Your task to perform on an android device: change timer sound Image 0: 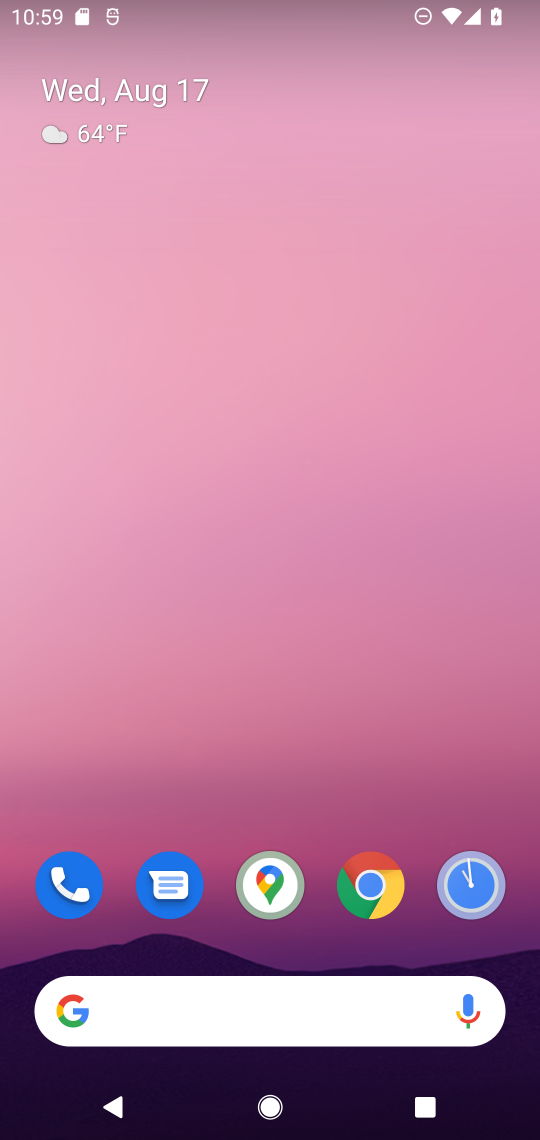
Step 0: click (467, 883)
Your task to perform on an android device: change timer sound Image 1: 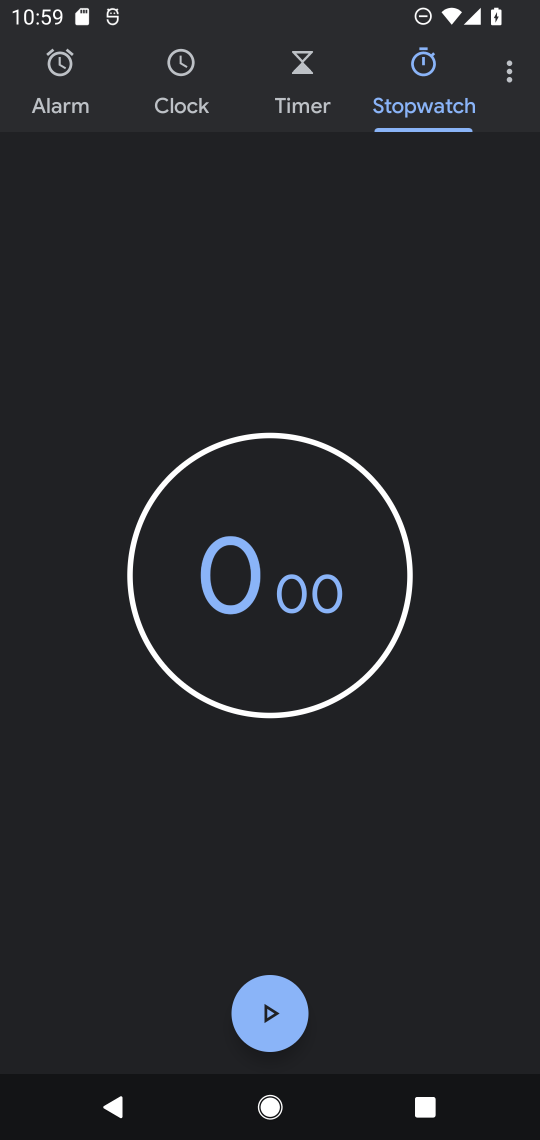
Step 1: click (501, 82)
Your task to perform on an android device: change timer sound Image 2: 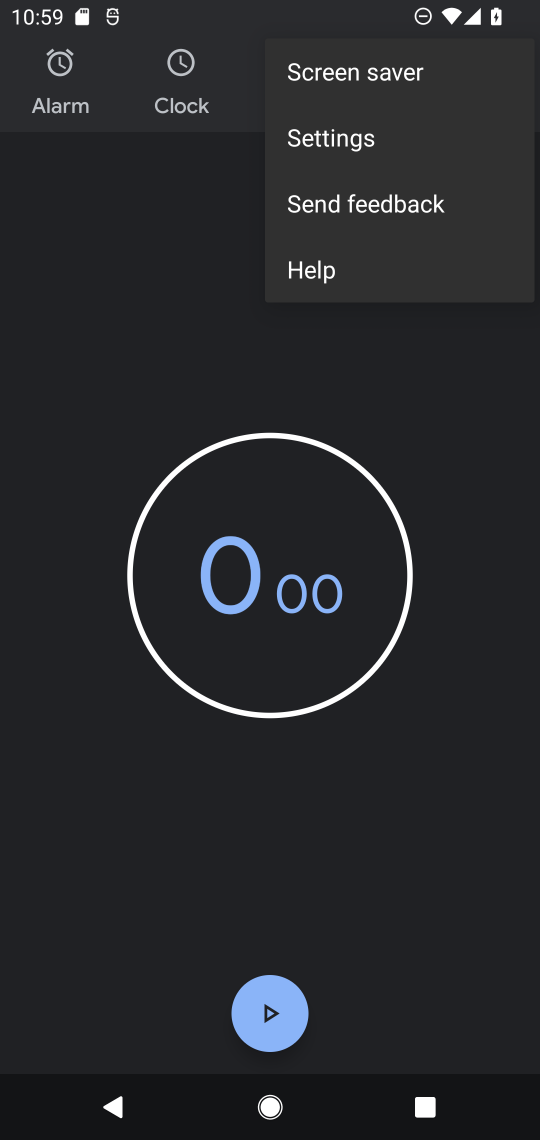
Step 2: click (339, 135)
Your task to perform on an android device: change timer sound Image 3: 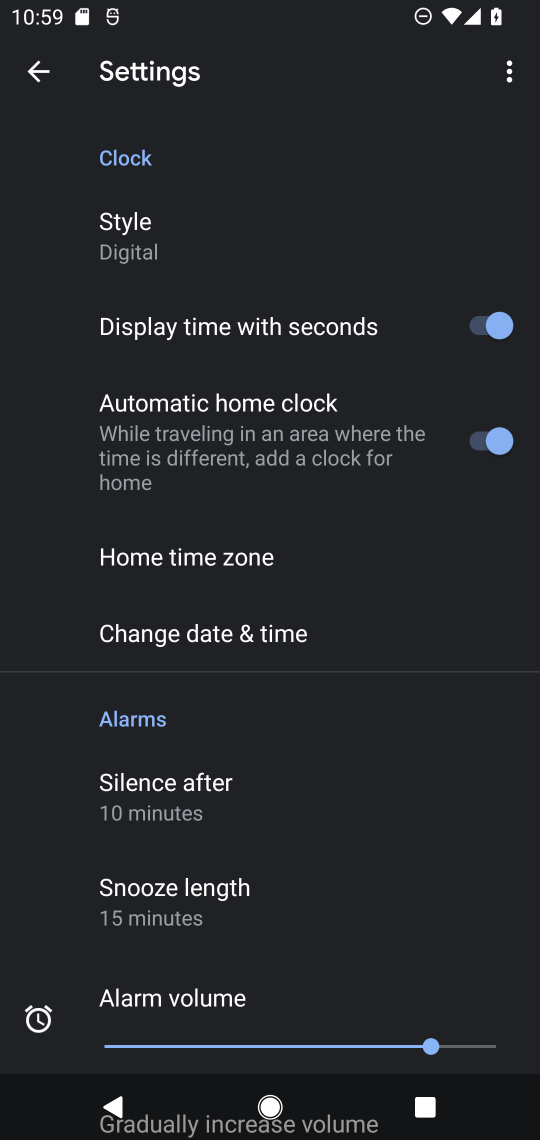
Step 3: drag from (325, 873) to (325, 263)
Your task to perform on an android device: change timer sound Image 4: 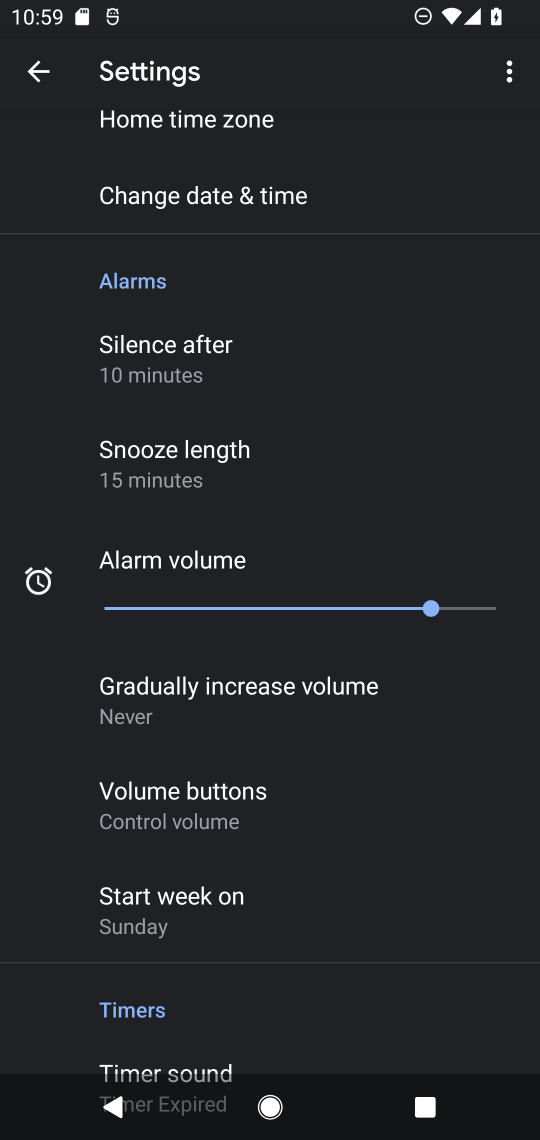
Step 4: drag from (318, 955) to (338, 372)
Your task to perform on an android device: change timer sound Image 5: 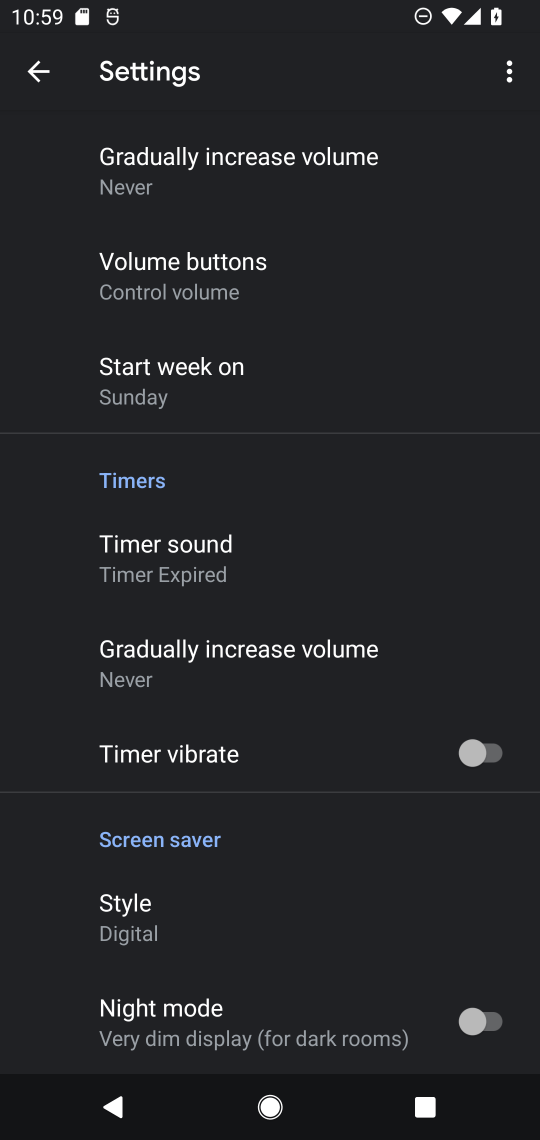
Step 5: click (178, 560)
Your task to perform on an android device: change timer sound Image 6: 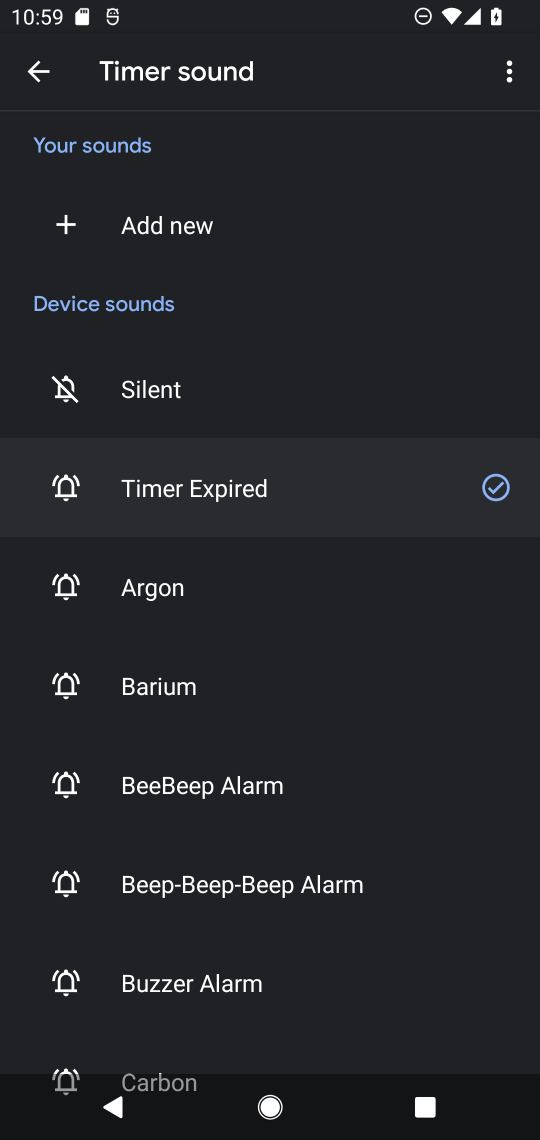
Step 6: drag from (318, 969) to (330, 69)
Your task to perform on an android device: change timer sound Image 7: 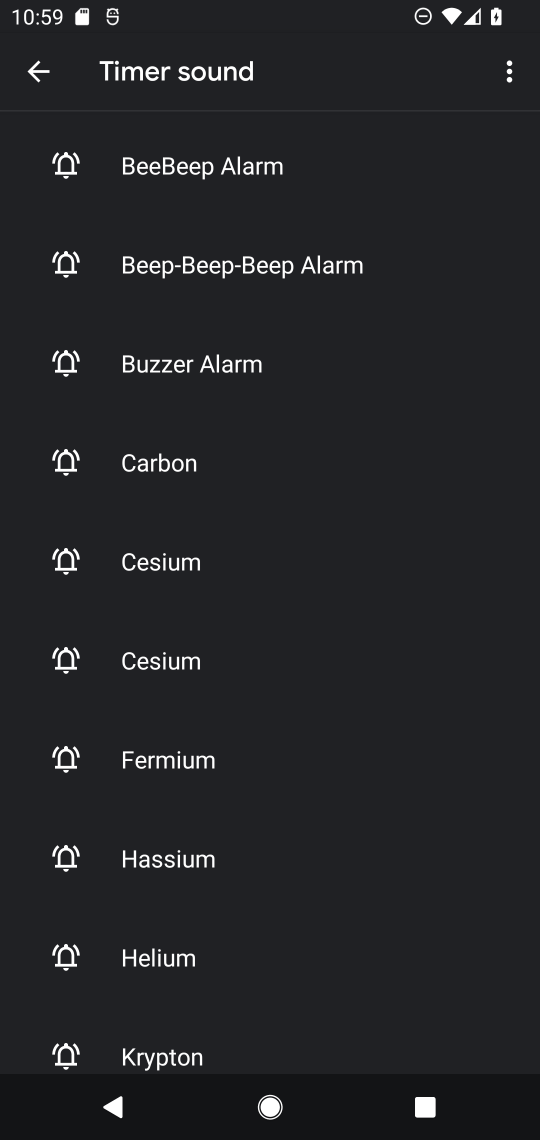
Step 7: click (179, 353)
Your task to perform on an android device: change timer sound Image 8: 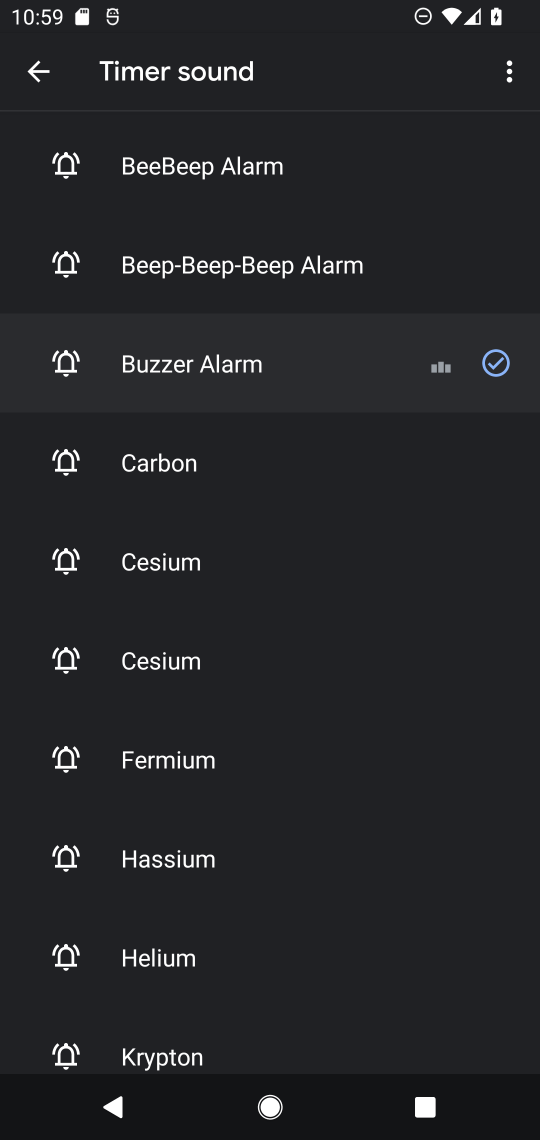
Step 8: task complete